Your task to perform on an android device: change the clock style Image 0: 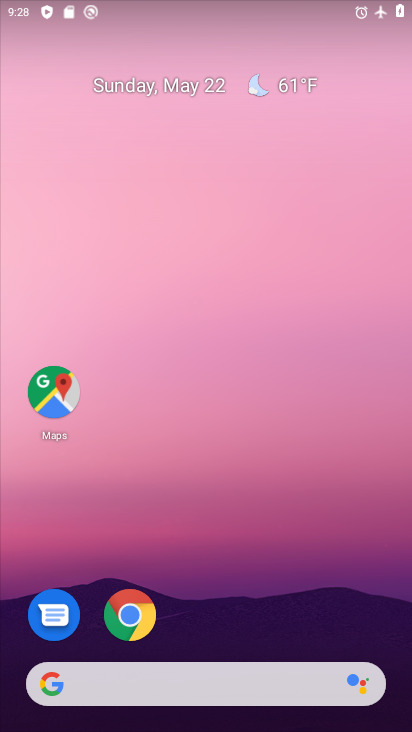
Step 0: drag from (271, 598) to (249, 160)
Your task to perform on an android device: change the clock style Image 1: 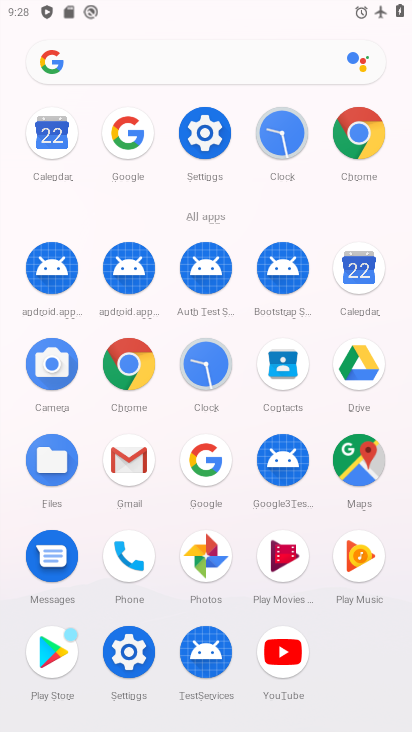
Step 1: click (221, 368)
Your task to perform on an android device: change the clock style Image 2: 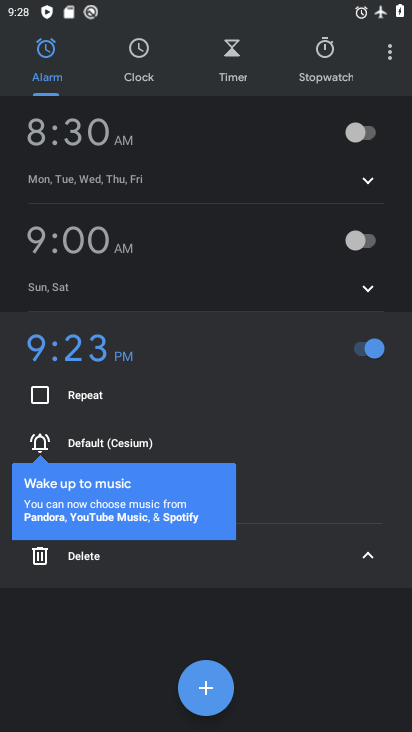
Step 2: click (390, 58)
Your task to perform on an android device: change the clock style Image 3: 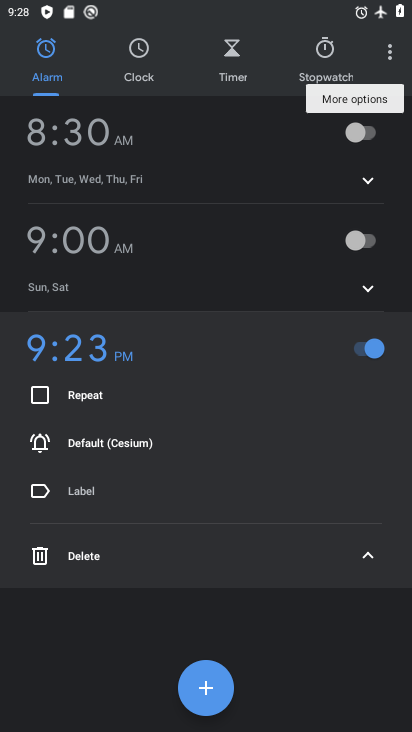
Step 3: click (390, 58)
Your task to perform on an android device: change the clock style Image 4: 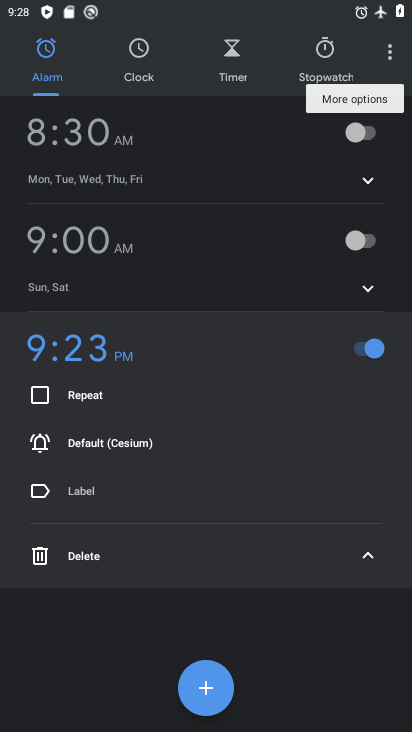
Step 4: click (390, 51)
Your task to perform on an android device: change the clock style Image 5: 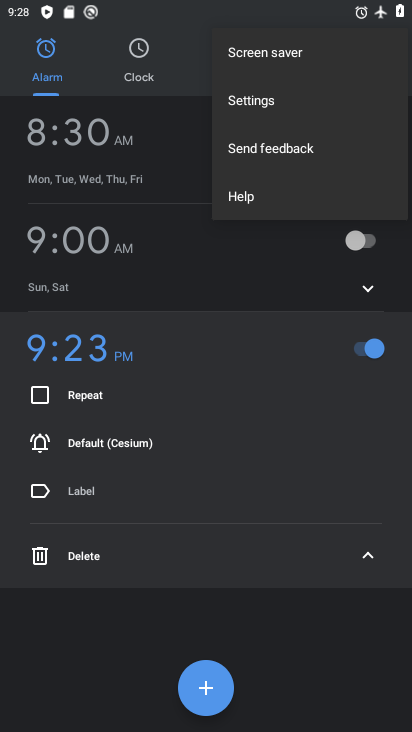
Step 5: click (287, 109)
Your task to perform on an android device: change the clock style Image 6: 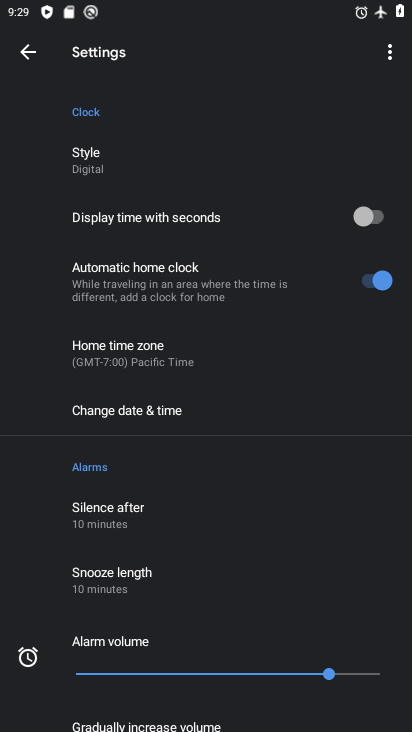
Step 6: click (97, 161)
Your task to perform on an android device: change the clock style Image 7: 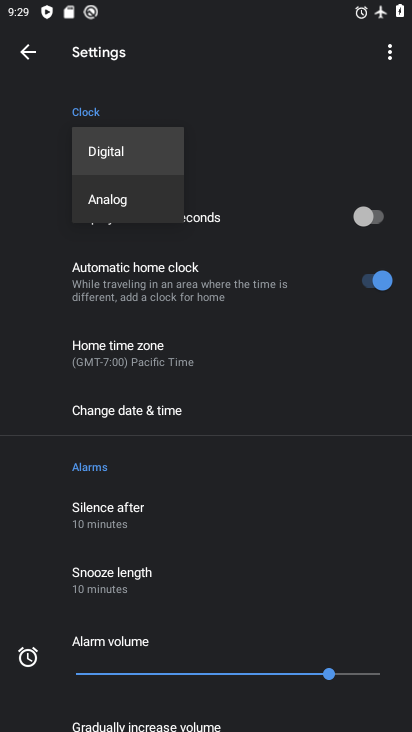
Step 7: click (129, 191)
Your task to perform on an android device: change the clock style Image 8: 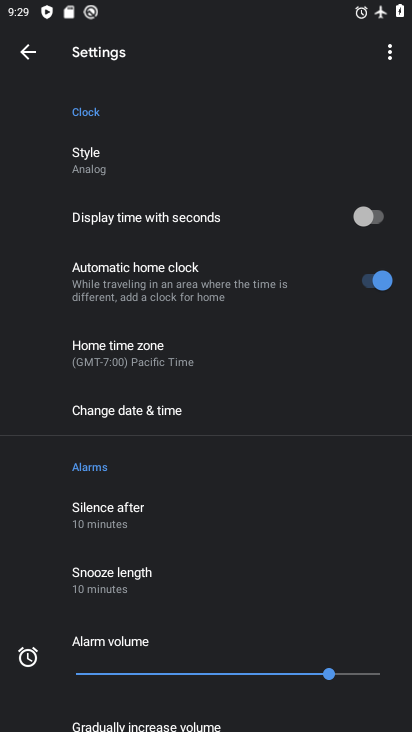
Step 8: task complete